Your task to perform on an android device: Open Google Chrome Image 0: 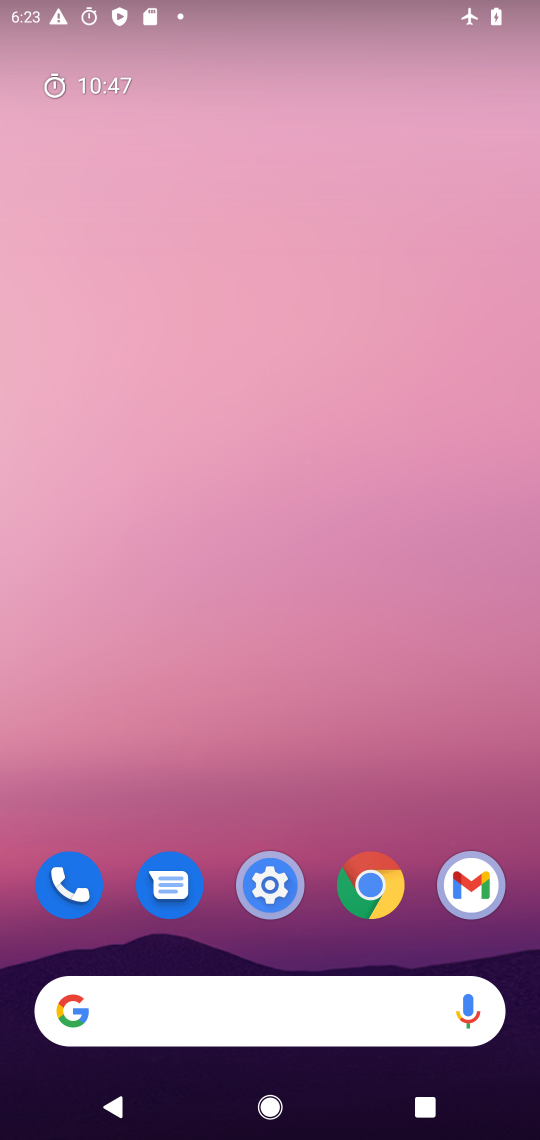
Step 0: click (379, 904)
Your task to perform on an android device: Open Google Chrome Image 1: 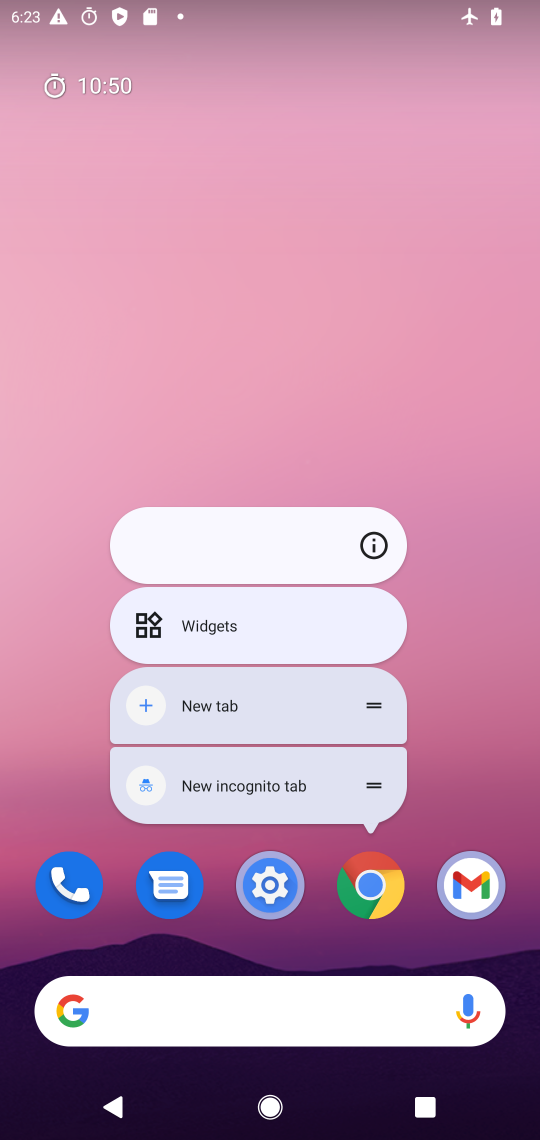
Step 1: click (381, 906)
Your task to perform on an android device: Open Google Chrome Image 2: 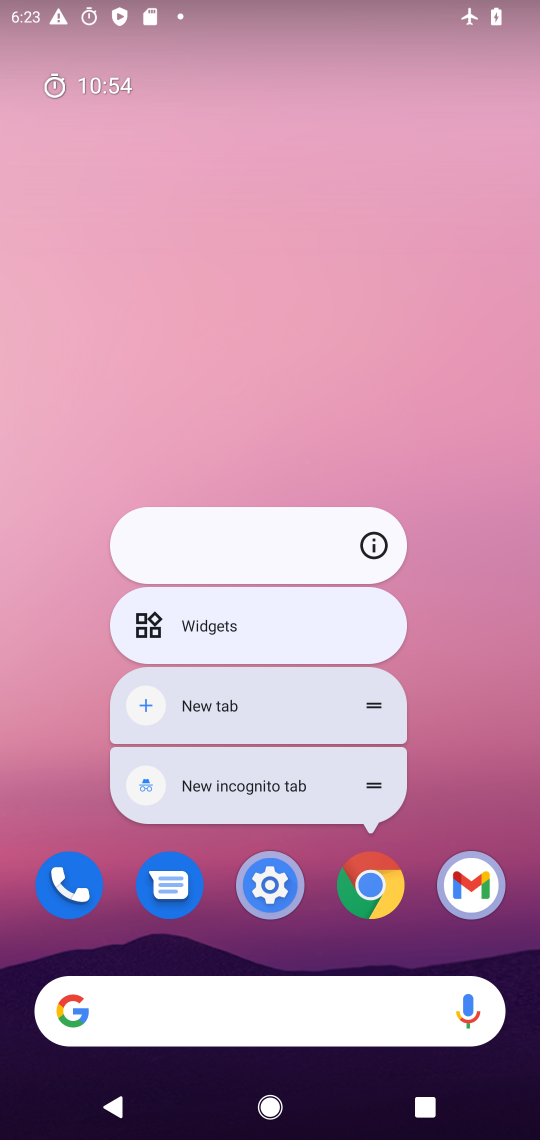
Step 2: click (379, 915)
Your task to perform on an android device: Open Google Chrome Image 3: 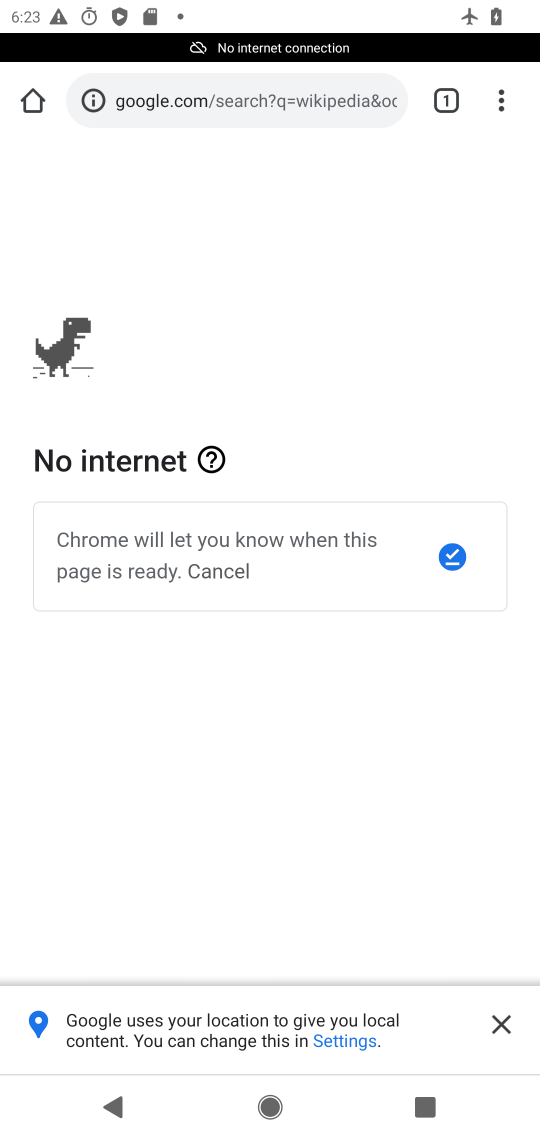
Step 3: task complete